Your task to perform on an android device: toggle notification dots Image 0: 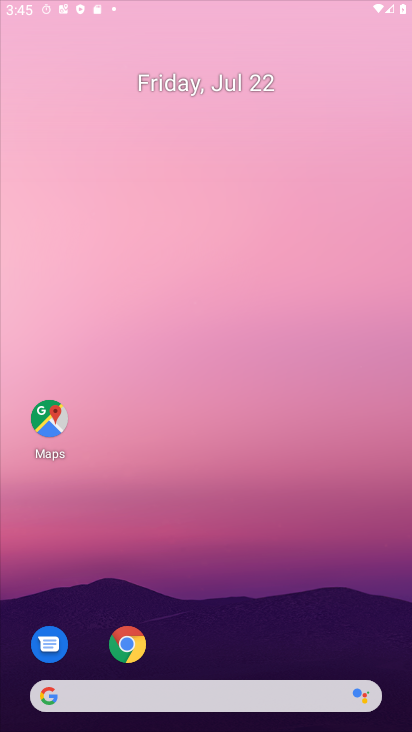
Step 0: press home button
Your task to perform on an android device: toggle notification dots Image 1: 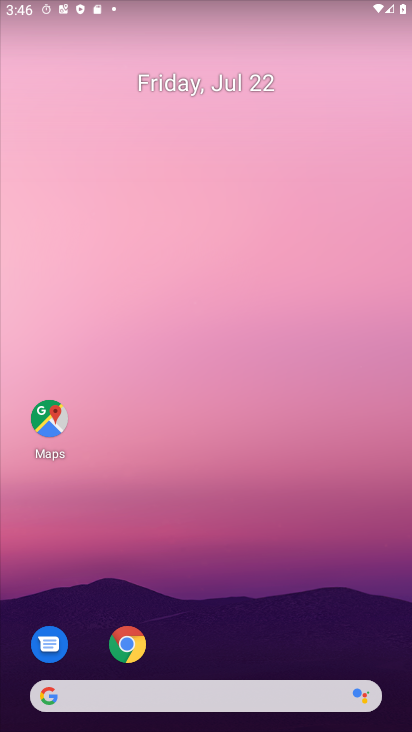
Step 1: drag from (254, 620) to (173, 220)
Your task to perform on an android device: toggle notification dots Image 2: 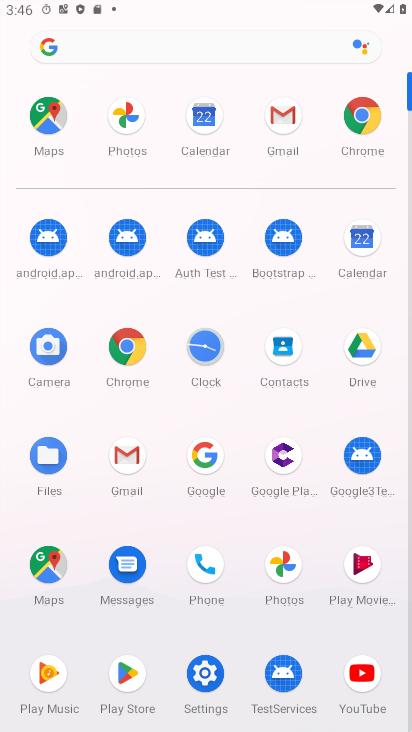
Step 2: click (201, 677)
Your task to perform on an android device: toggle notification dots Image 3: 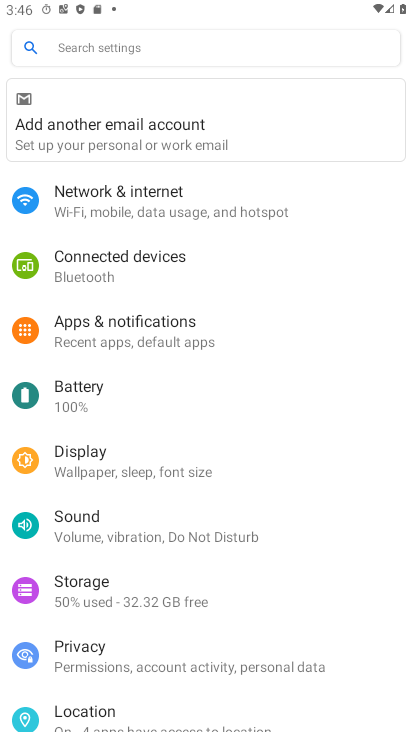
Step 3: click (161, 333)
Your task to perform on an android device: toggle notification dots Image 4: 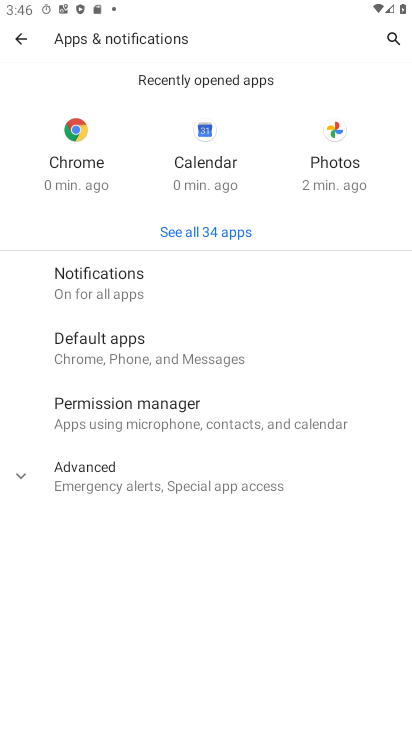
Step 4: click (107, 274)
Your task to perform on an android device: toggle notification dots Image 5: 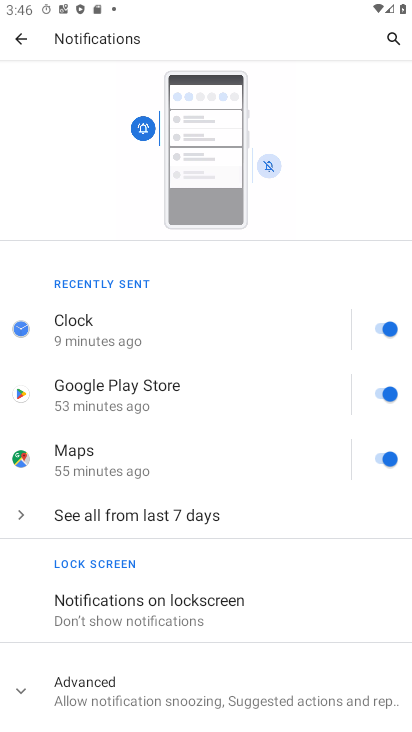
Step 5: click (77, 699)
Your task to perform on an android device: toggle notification dots Image 6: 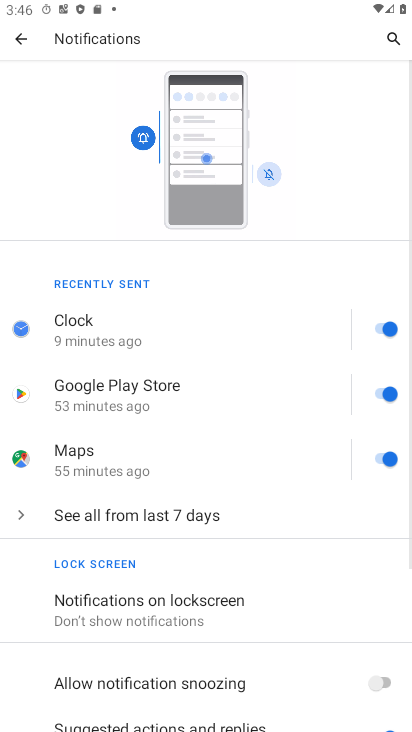
Step 6: drag from (242, 603) to (197, 177)
Your task to perform on an android device: toggle notification dots Image 7: 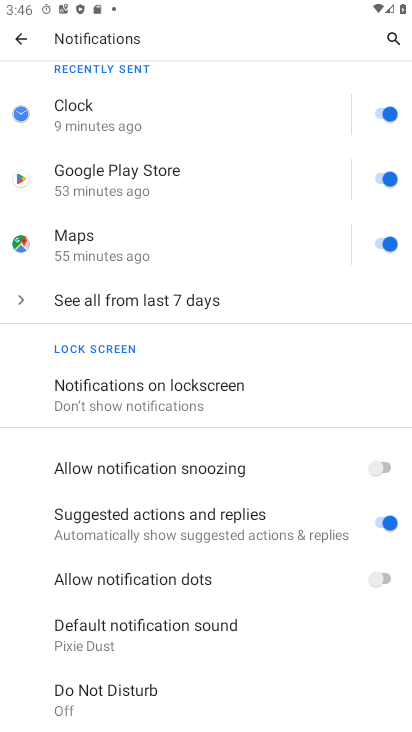
Step 7: click (375, 579)
Your task to perform on an android device: toggle notification dots Image 8: 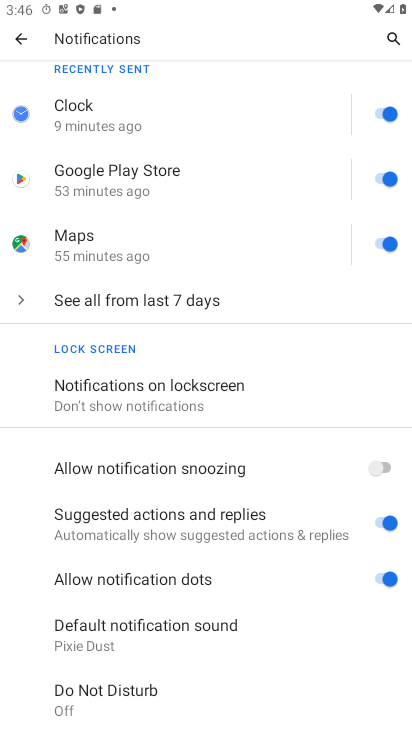
Step 8: task complete